Your task to perform on an android device: Open calendar and show me the first week of next month Image 0: 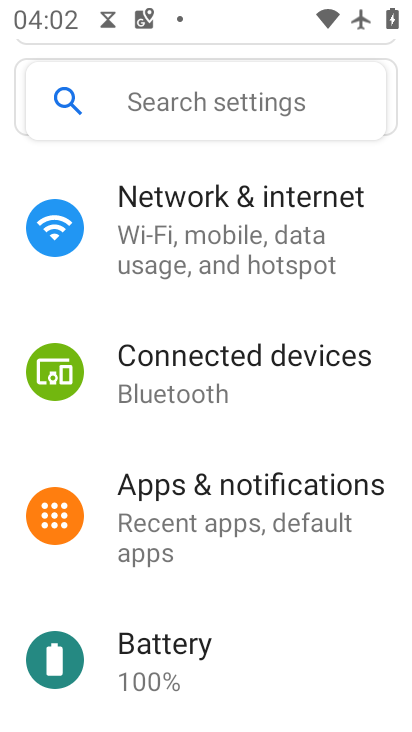
Step 0: press home button
Your task to perform on an android device: Open calendar and show me the first week of next month Image 1: 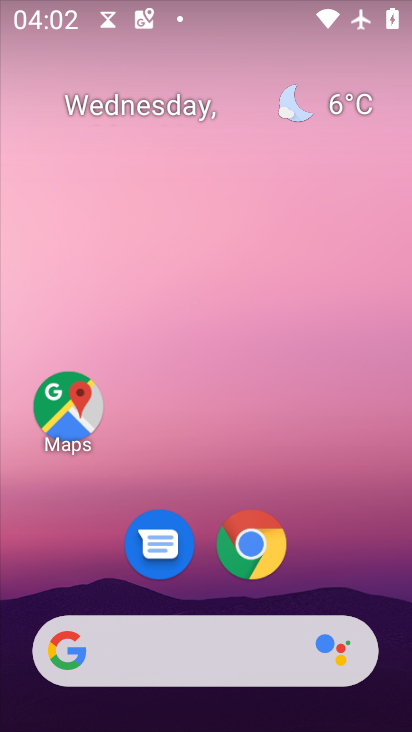
Step 1: drag from (311, 600) to (292, 84)
Your task to perform on an android device: Open calendar and show me the first week of next month Image 2: 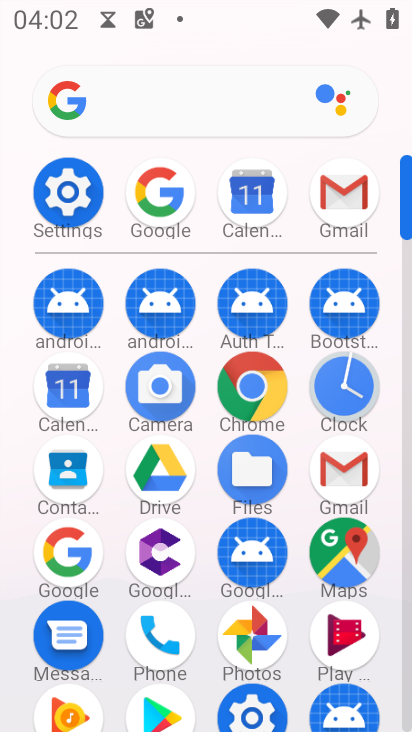
Step 2: click (62, 399)
Your task to perform on an android device: Open calendar and show me the first week of next month Image 3: 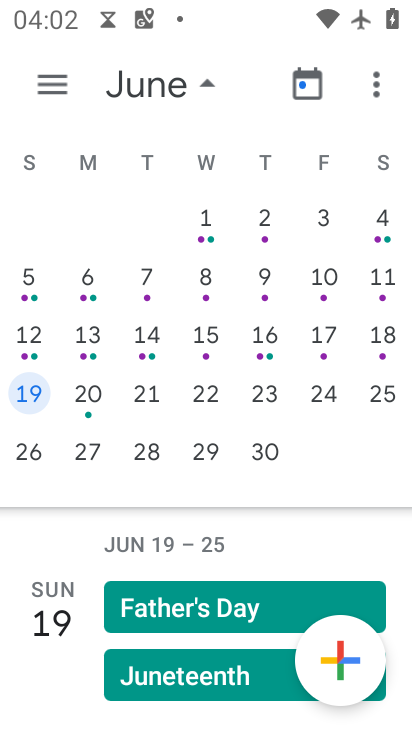
Step 3: click (208, 222)
Your task to perform on an android device: Open calendar and show me the first week of next month Image 4: 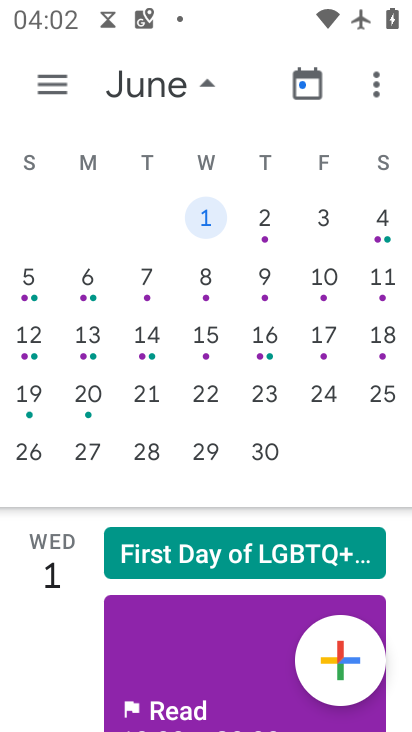
Step 4: task complete